Your task to perform on an android device: Open accessibility settings Image 0: 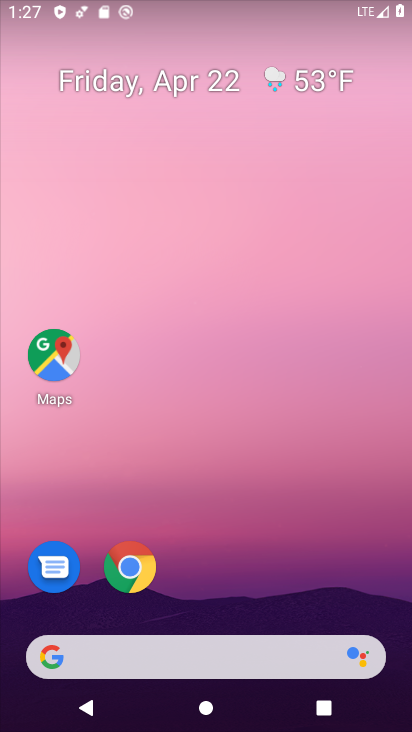
Step 0: drag from (356, 595) to (284, 125)
Your task to perform on an android device: Open accessibility settings Image 1: 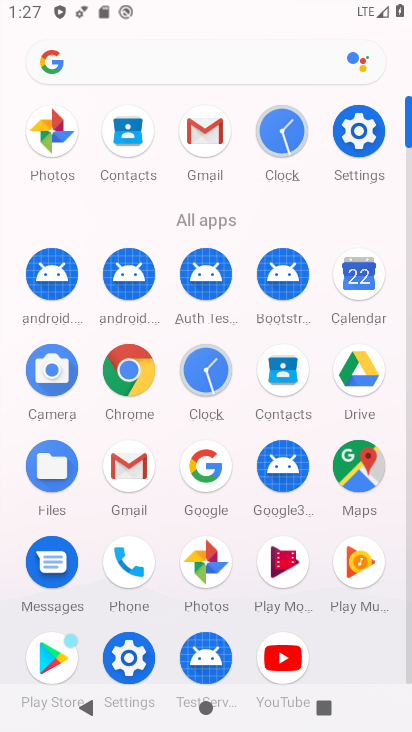
Step 1: click (129, 647)
Your task to perform on an android device: Open accessibility settings Image 2: 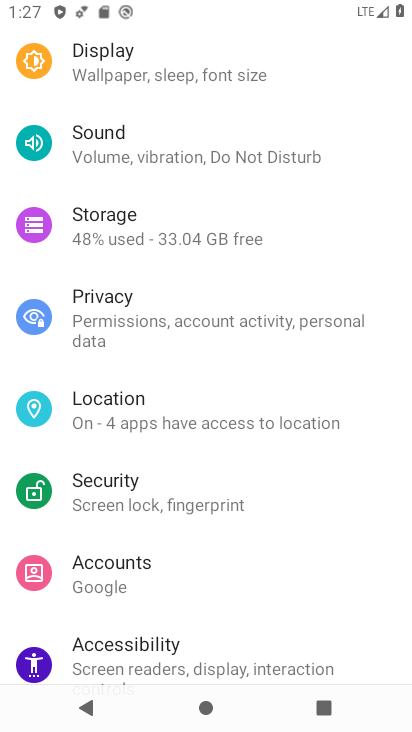
Step 2: click (174, 646)
Your task to perform on an android device: Open accessibility settings Image 3: 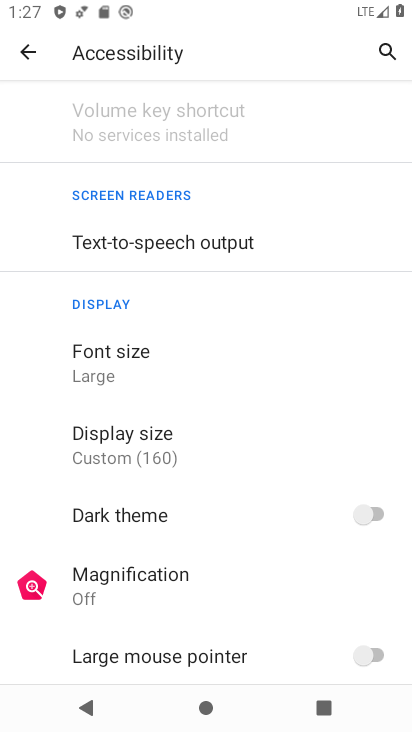
Step 3: task complete